Your task to perform on an android device: Open calendar and show me the third week of next month Image 0: 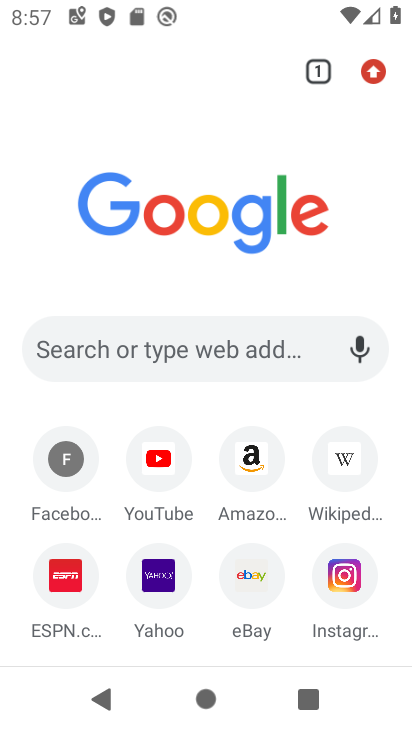
Step 0: press home button
Your task to perform on an android device: Open calendar and show me the third week of next month Image 1: 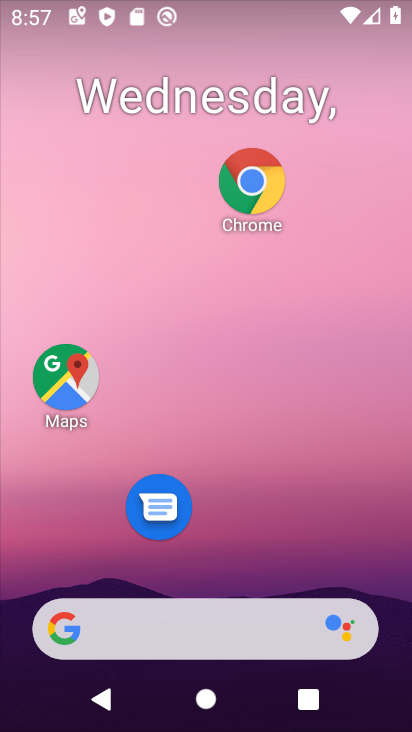
Step 1: drag from (249, 590) to (303, 256)
Your task to perform on an android device: Open calendar and show me the third week of next month Image 2: 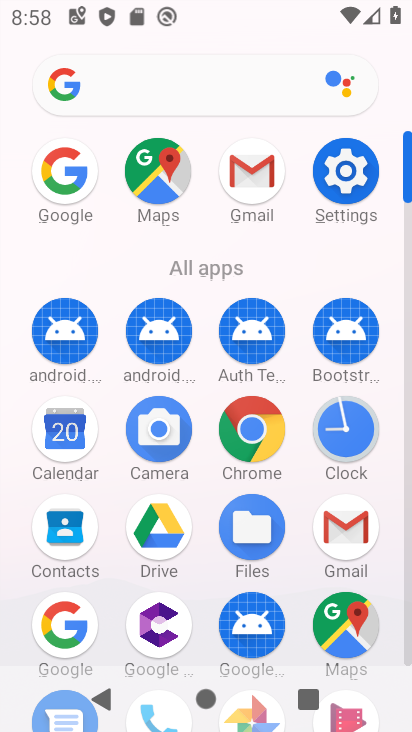
Step 2: click (71, 431)
Your task to perform on an android device: Open calendar and show me the third week of next month Image 3: 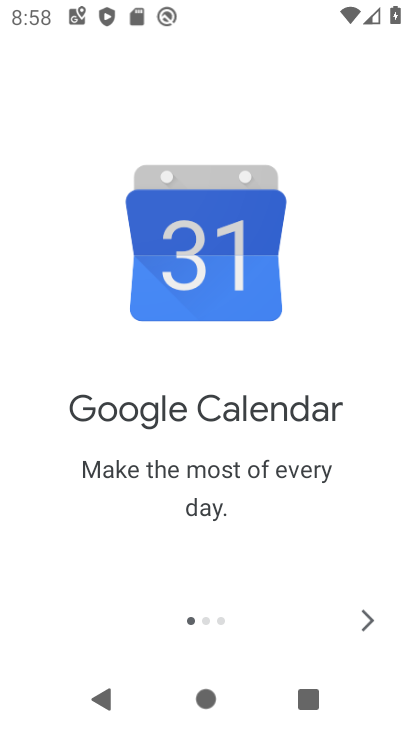
Step 3: click (360, 610)
Your task to perform on an android device: Open calendar and show me the third week of next month Image 4: 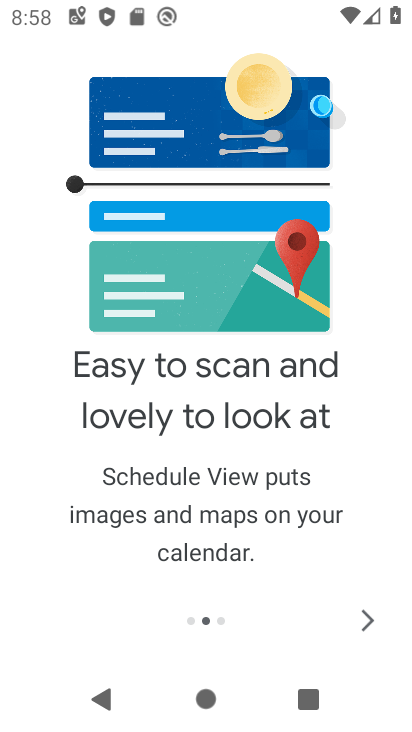
Step 4: click (369, 616)
Your task to perform on an android device: Open calendar and show me the third week of next month Image 5: 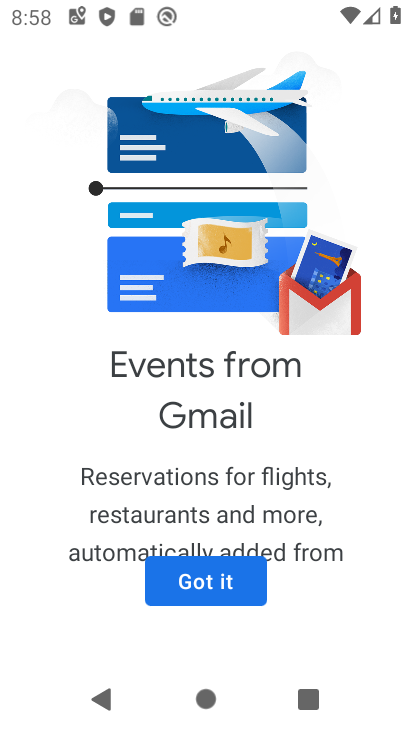
Step 5: click (237, 591)
Your task to perform on an android device: Open calendar and show me the third week of next month Image 6: 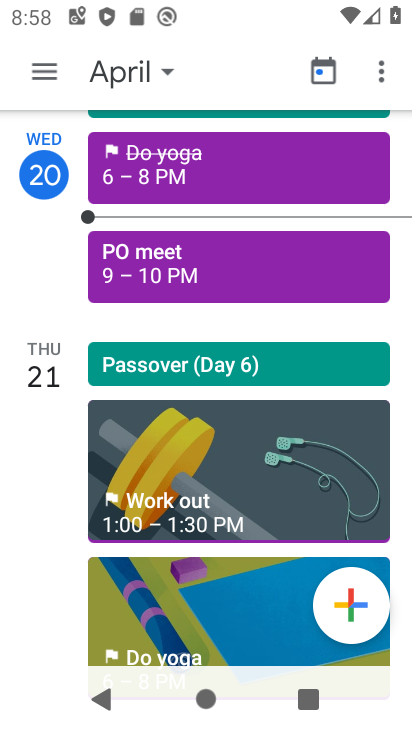
Step 6: click (157, 73)
Your task to perform on an android device: Open calendar and show me the third week of next month Image 7: 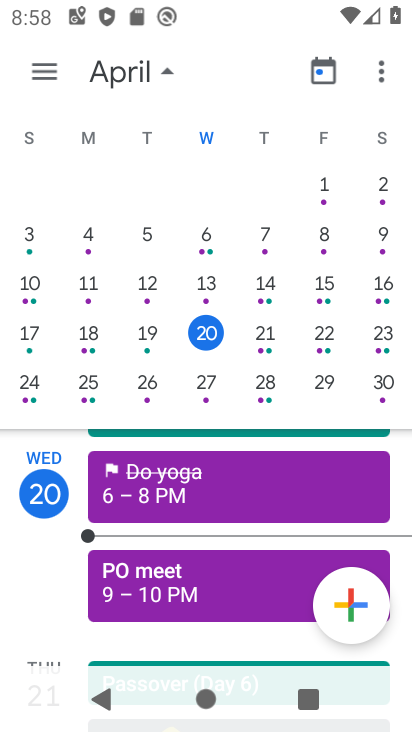
Step 7: drag from (318, 322) to (6, 258)
Your task to perform on an android device: Open calendar and show me the third week of next month Image 8: 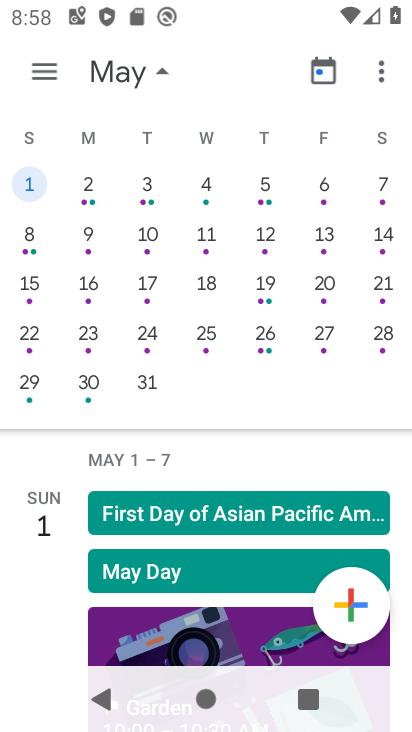
Step 8: click (33, 301)
Your task to perform on an android device: Open calendar and show me the third week of next month Image 9: 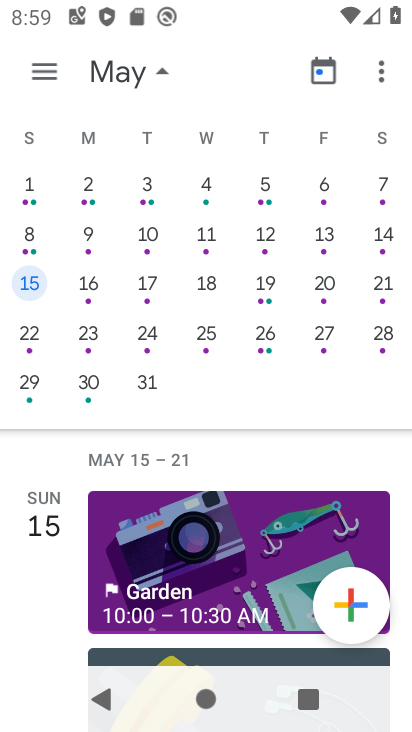
Step 9: task complete